Your task to perform on an android device: check the backup settings in the google photos Image 0: 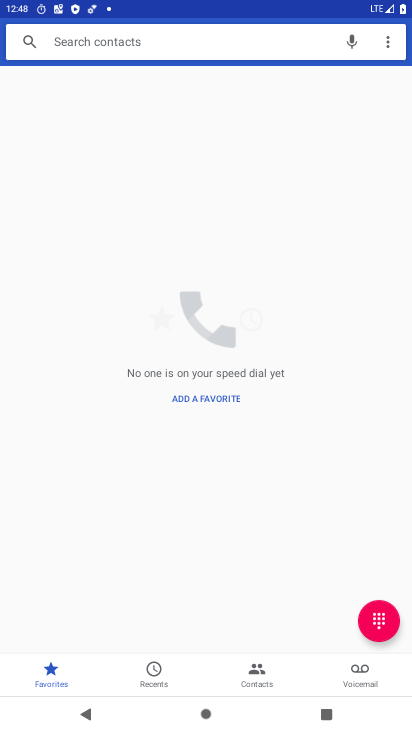
Step 0: drag from (277, 641) to (274, 4)
Your task to perform on an android device: check the backup settings in the google photos Image 1: 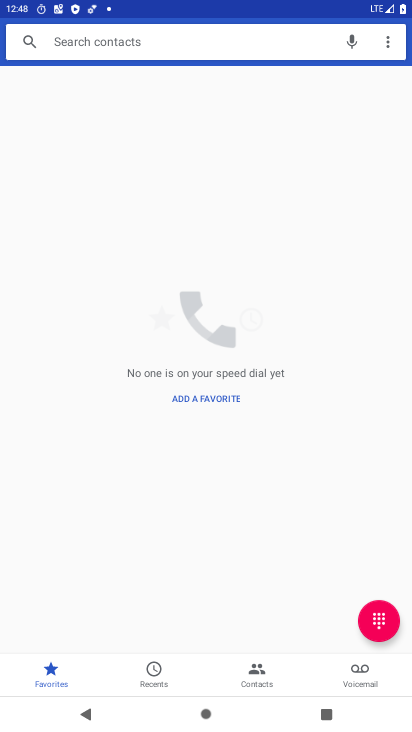
Step 1: press home button
Your task to perform on an android device: check the backup settings in the google photos Image 2: 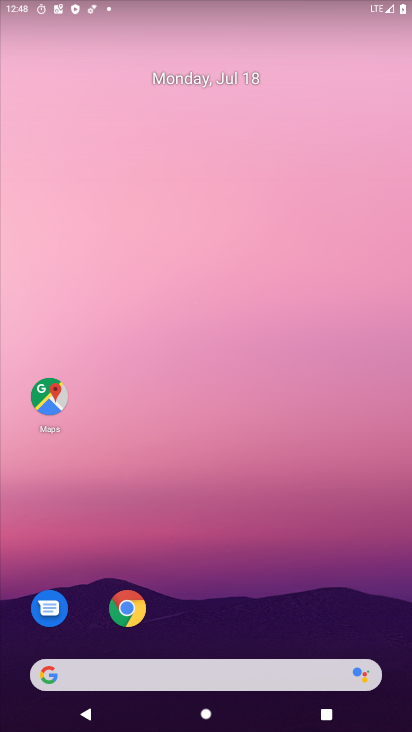
Step 2: drag from (242, 572) to (32, 441)
Your task to perform on an android device: check the backup settings in the google photos Image 3: 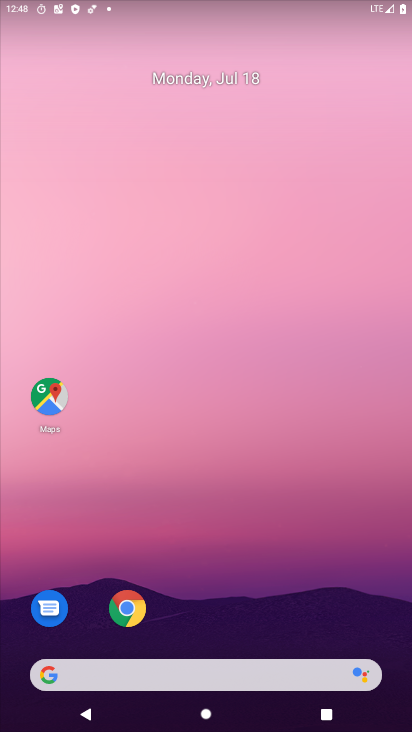
Step 3: drag from (305, 677) to (273, 0)
Your task to perform on an android device: check the backup settings in the google photos Image 4: 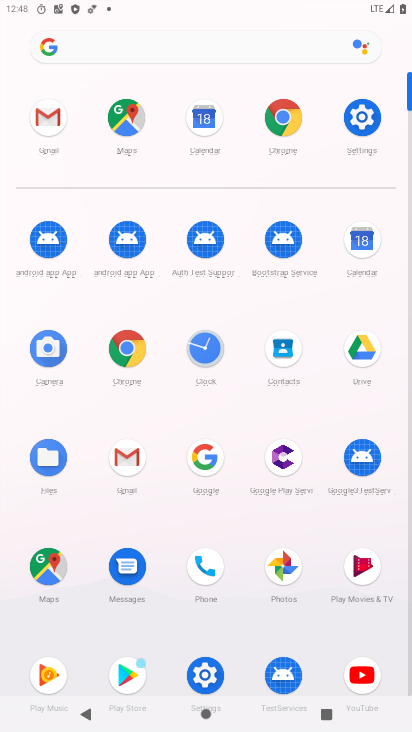
Step 4: click (287, 566)
Your task to perform on an android device: check the backup settings in the google photos Image 5: 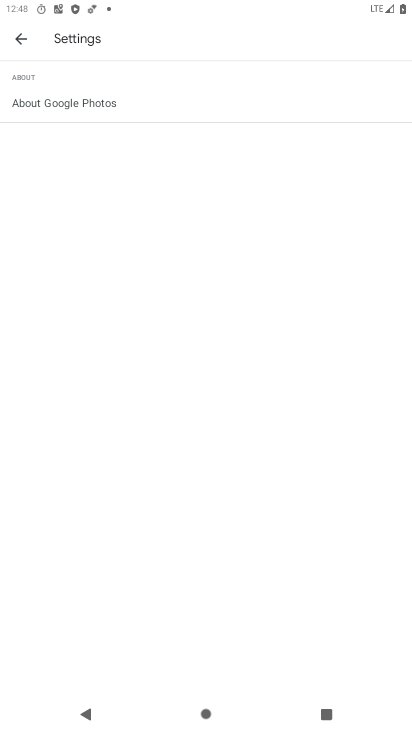
Step 5: click (24, 41)
Your task to perform on an android device: check the backup settings in the google photos Image 6: 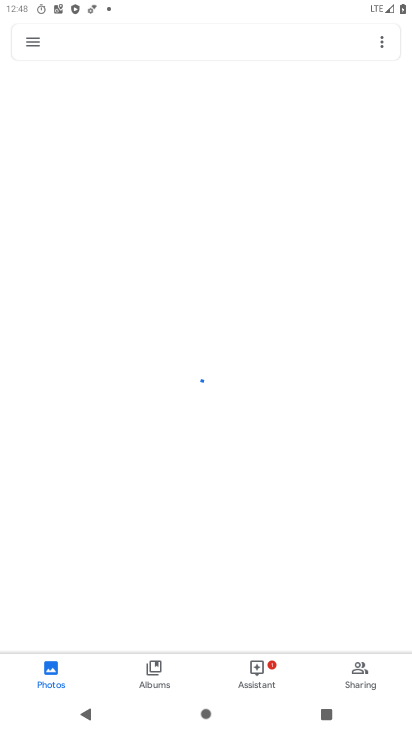
Step 6: click (33, 30)
Your task to perform on an android device: check the backup settings in the google photos Image 7: 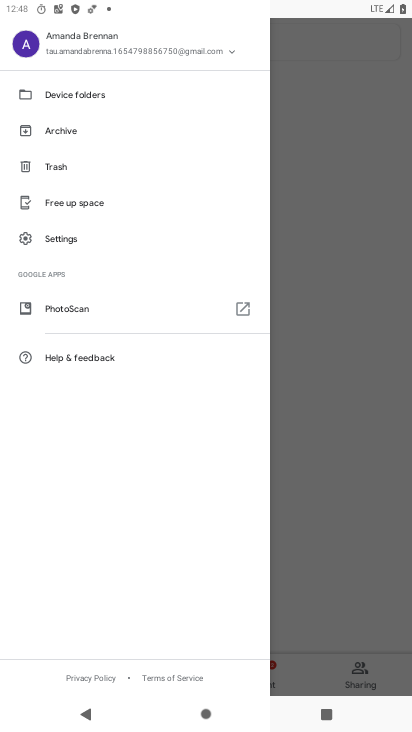
Step 7: click (67, 241)
Your task to perform on an android device: check the backup settings in the google photos Image 8: 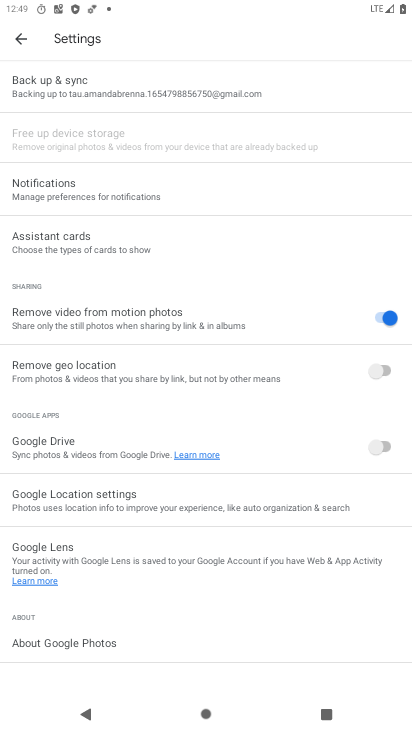
Step 8: click (78, 86)
Your task to perform on an android device: check the backup settings in the google photos Image 9: 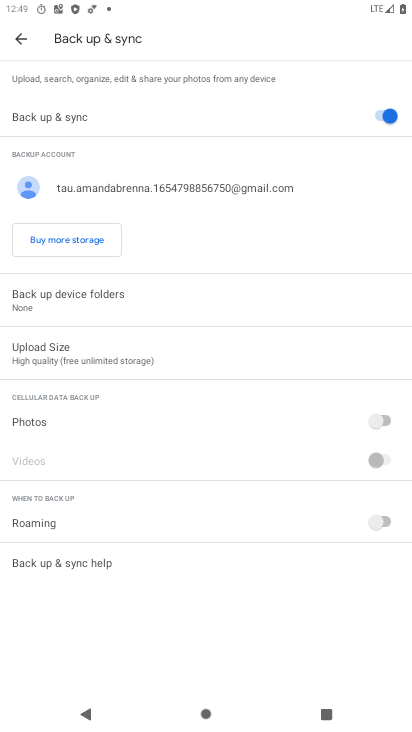
Step 9: task complete